Your task to perform on an android device: all mails in gmail Image 0: 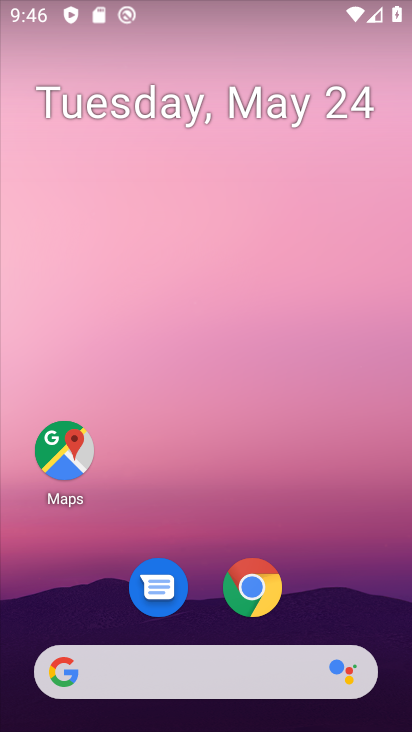
Step 0: press home button
Your task to perform on an android device: all mails in gmail Image 1: 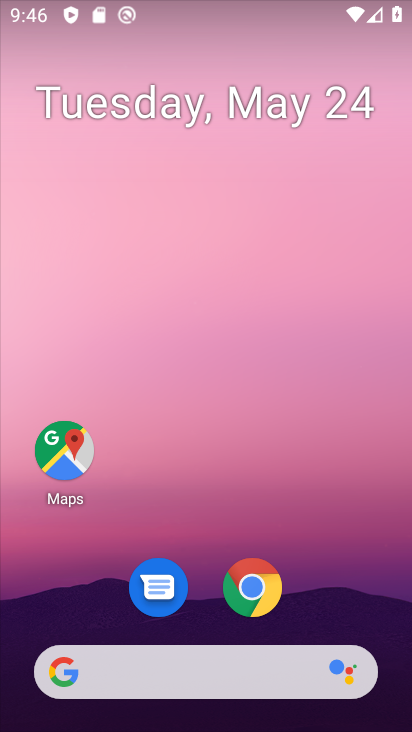
Step 1: drag from (363, 598) to (161, 64)
Your task to perform on an android device: all mails in gmail Image 2: 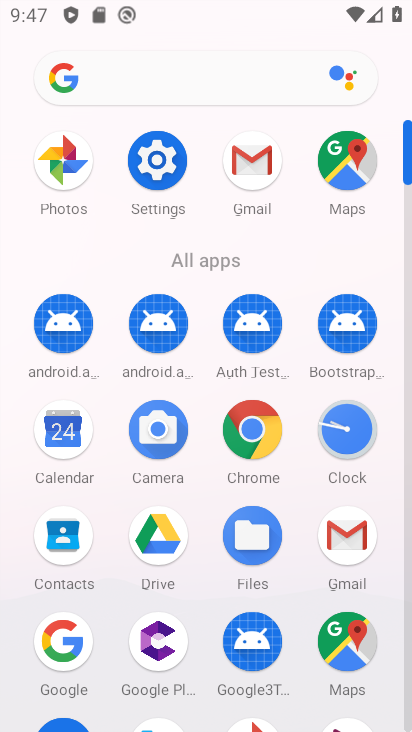
Step 2: click (261, 174)
Your task to perform on an android device: all mails in gmail Image 3: 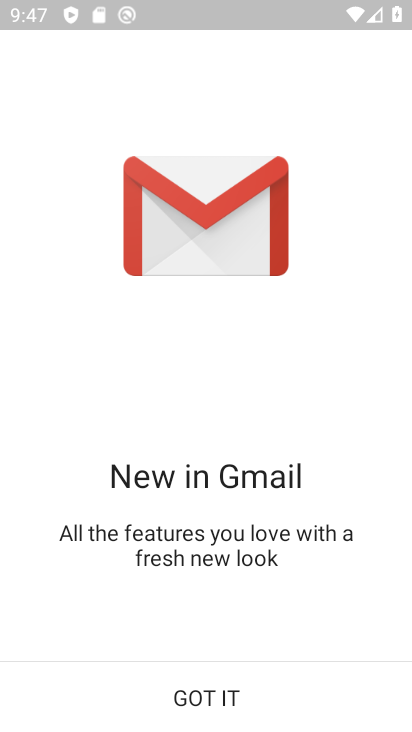
Step 3: click (207, 681)
Your task to perform on an android device: all mails in gmail Image 4: 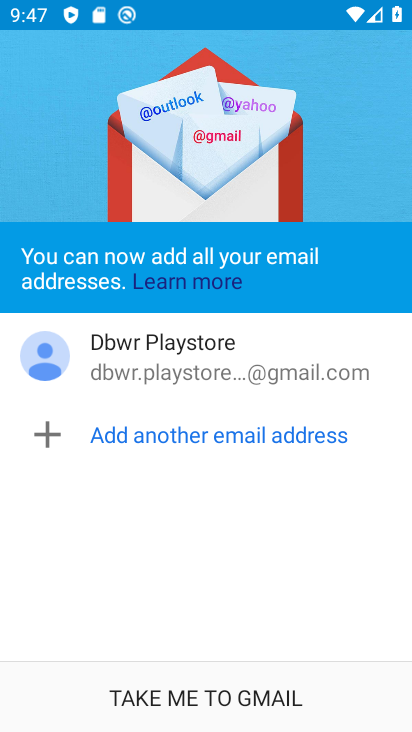
Step 4: click (207, 681)
Your task to perform on an android device: all mails in gmail Image 5: 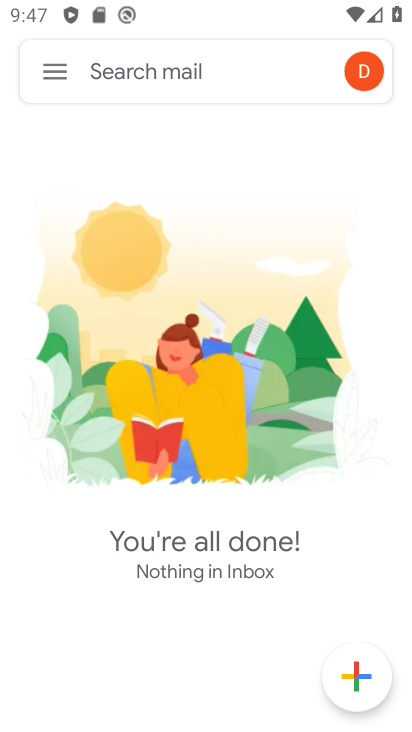
Step 5: click (45, 67)
Your task to perform on an android device: all mails in gmail Image 6: 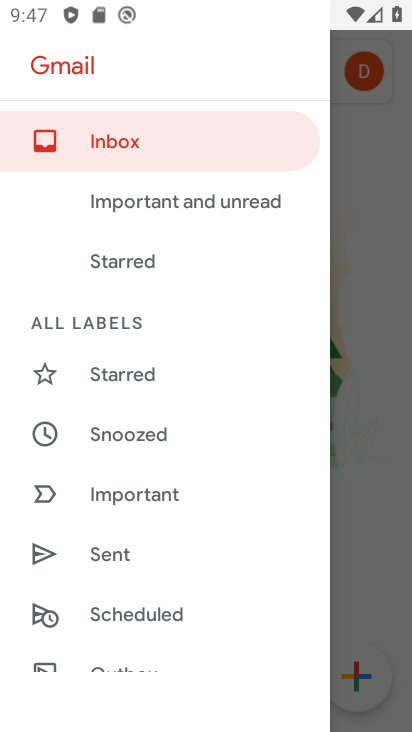
Step 6: drag from (195, 627) to (158, 189)
Your task to perform on an android device: all mails in gmail Image 7: 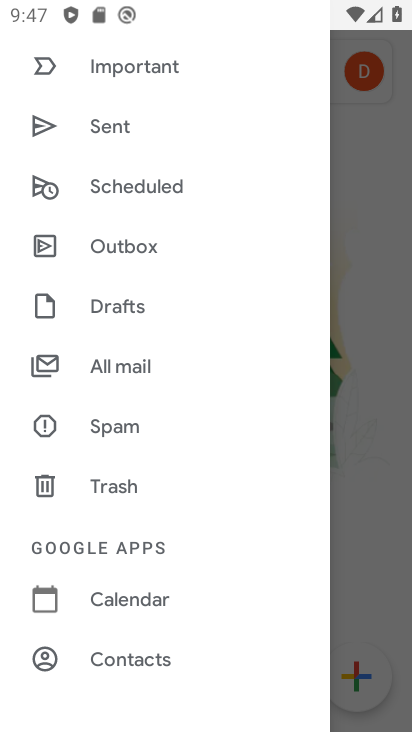
Step 7: click (84, 355)
Your task to perform on an android device: all mails in gmail Image 8: 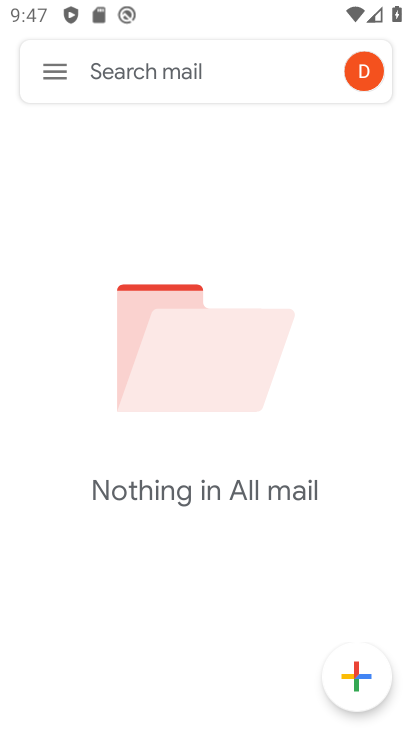
Step 8: task complete